Your task to perform on an android device: Go to Google maps Image 0: 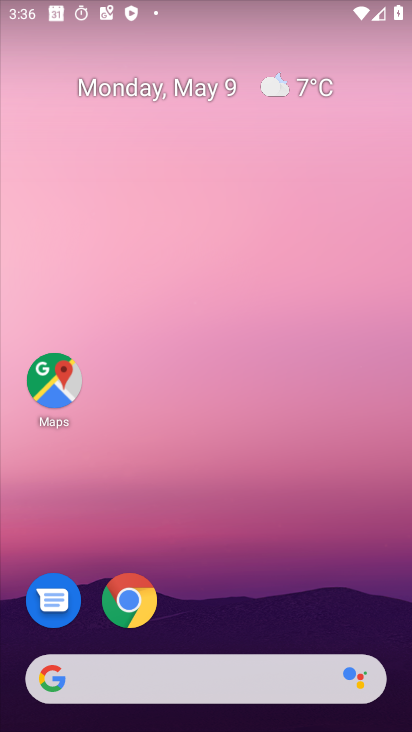
Step 0: drag from (286, 623) to (238, 61)
Your task to perform on an android device: Go to Google maps Image 1: 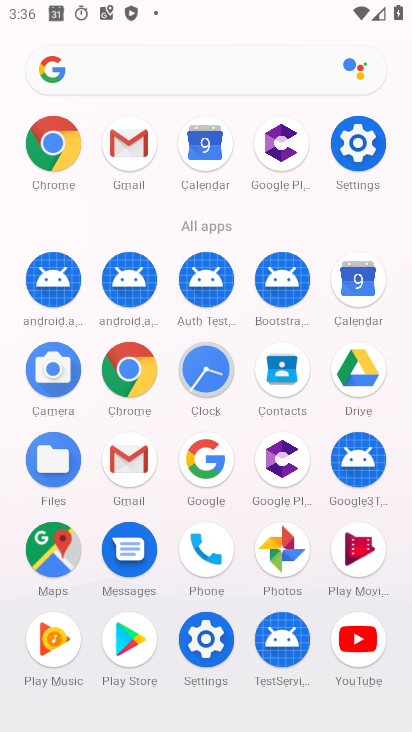
Step 1: click (53, 554)
Your task to perform on an android device: Go to Google maps Image 2: 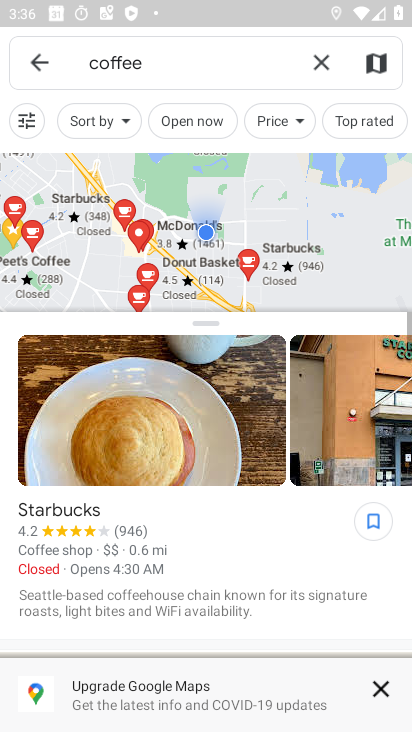
Step 2: task complete